Your task to perform on an android device: toggle sleep mode Image 0: 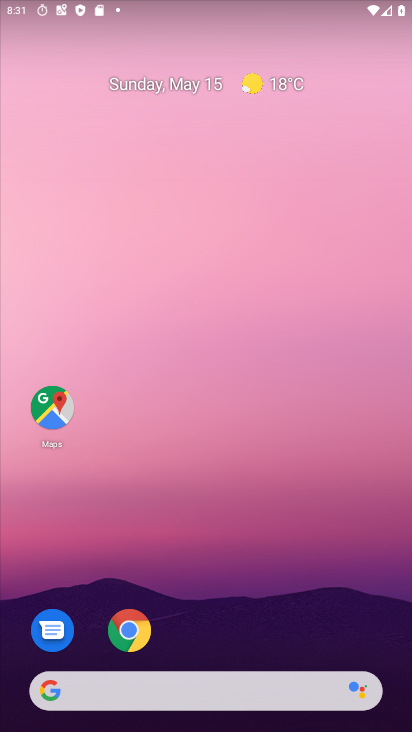
Step 0: drag from (205, 636) to (227, 295)
Your task to perform on an android device: toggle sleep mode Image 1: 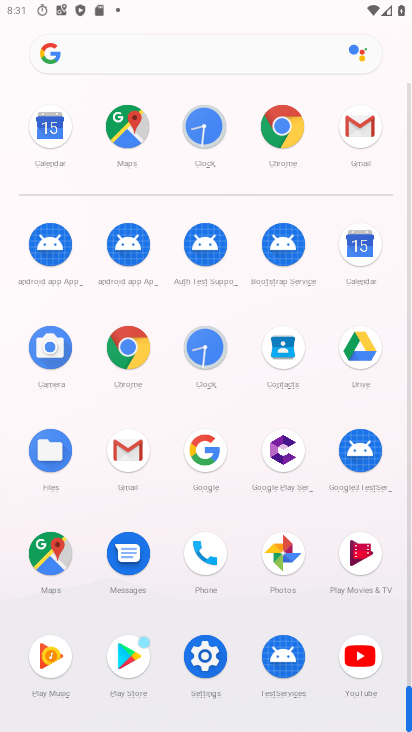
Step 1: click (204, 669)
Your task to perform on an android device: toggle sleep mode Image 2: 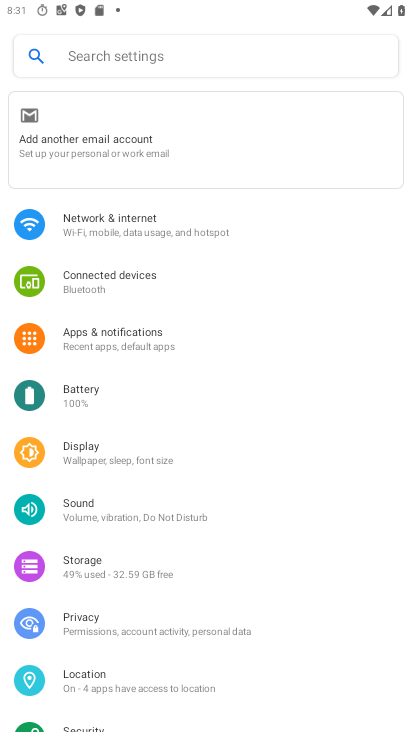
Step 2: drag from (218, 586) to (286, 172)
Your task to perform on an android device: toggle sleep mode Image 3: 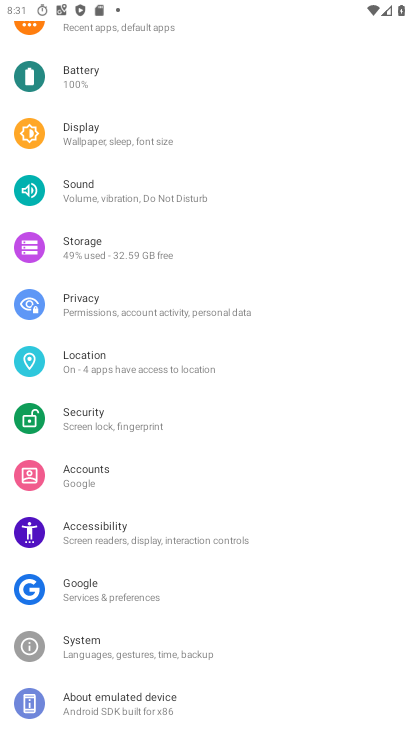
Step 3: click (144, 140)
Your task to perform on an android device: toggle sleep mode Image 4: 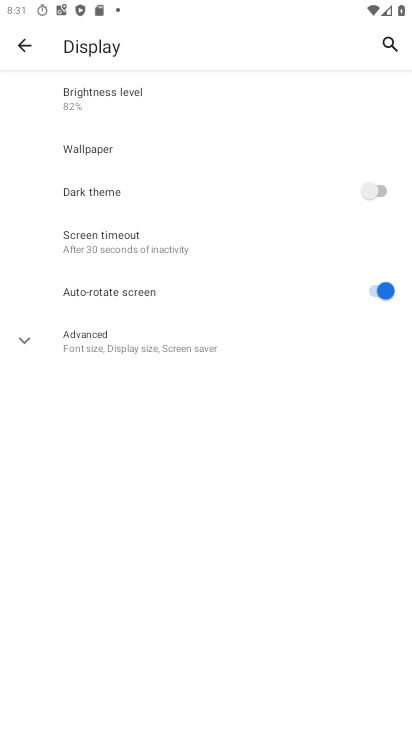
Step 4: click (111, 248)
Your task to perform on an android device: toggle sleep mode Image 5: 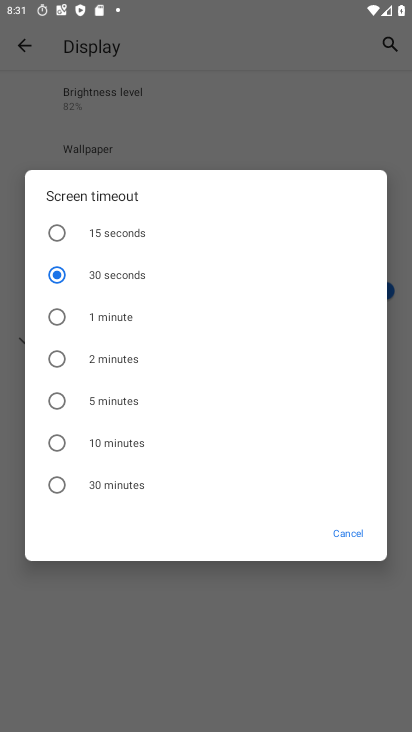
Step 5: task complete